Your task to perform on an android device: delete location history Image 0: 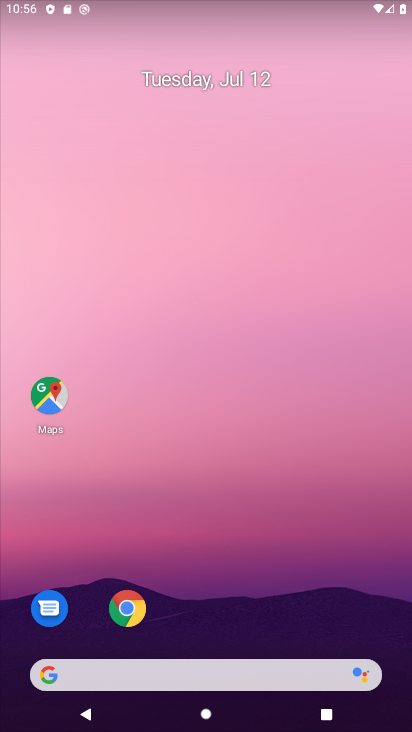
Step 0: drag from (215, 658) to (184, 180)
Your task to perform on an android device: delete location history Image 1: 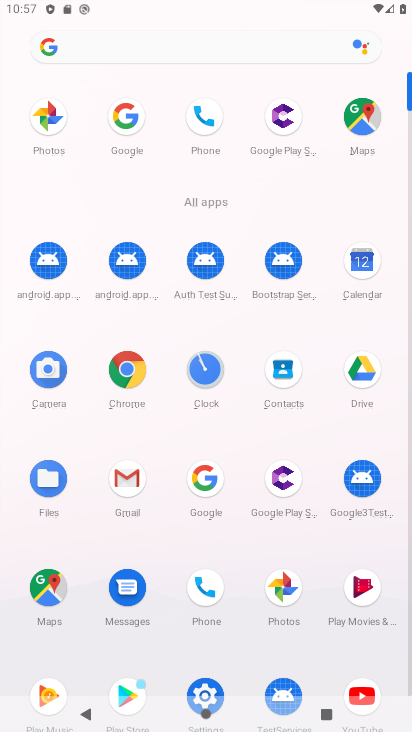
Step 1: click (52, 582)
Your task to perform on an android device: delete location history Image 2: 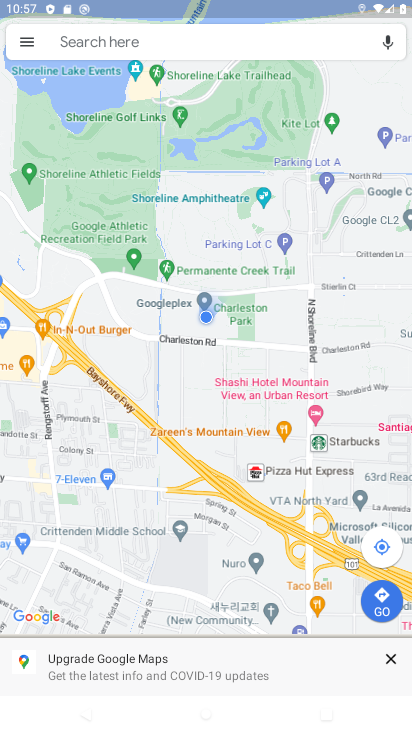
Step 2: click (32, 37)
Your task to perform on an android device: delete location history Image 3: 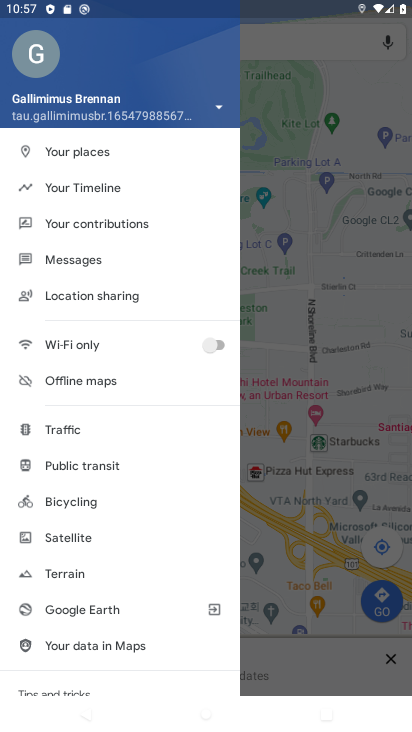
Step 3: click (62, 676)
Your task to perform on an android device: delete location history Image 4: 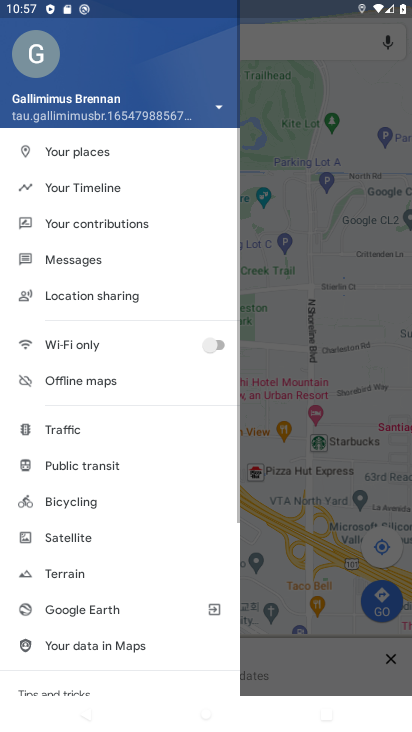
Step 4: drag from (59, 382) to (66, 346)
Your task to perform on an android device: delete location history Image 5: 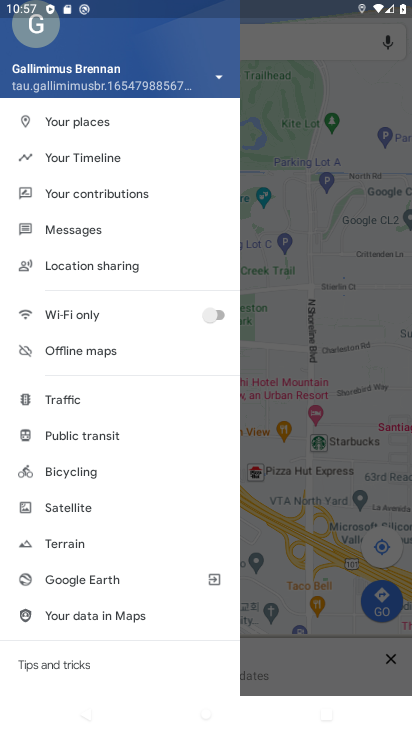
Step 5: click (99, 156)
Your task to perform on an android device: delete location history Image 6: 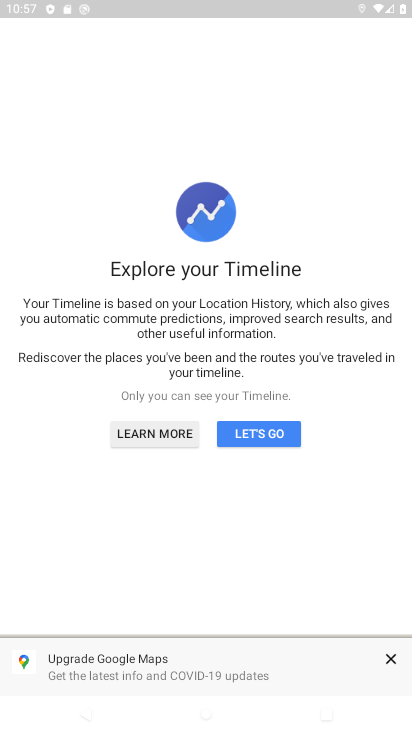
Step 6: click (249, 434)
Your task to perform on an android device: delete location history Image 7: 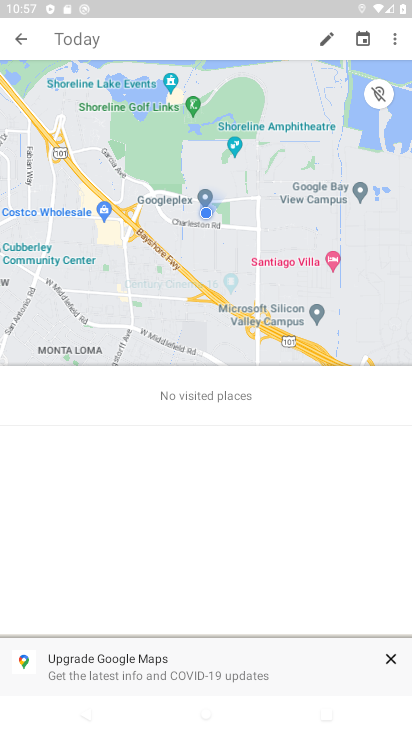
Step 7: click (394, 39)
Your task to perform on an android device: delete location history Image 8: 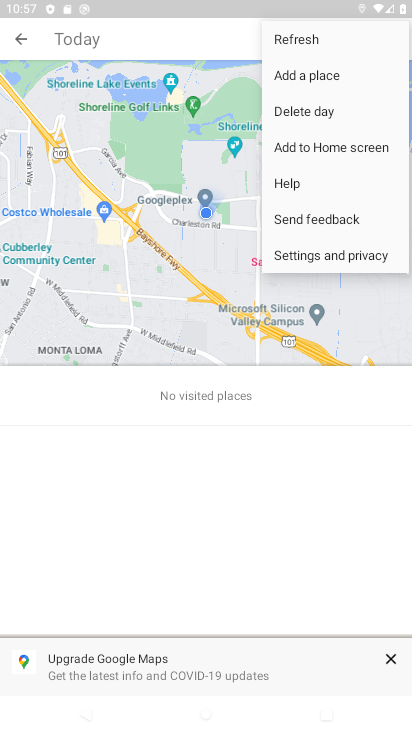
Step 8: click (317, 254)
Your task to perform on an android device: delete location history Image 9: 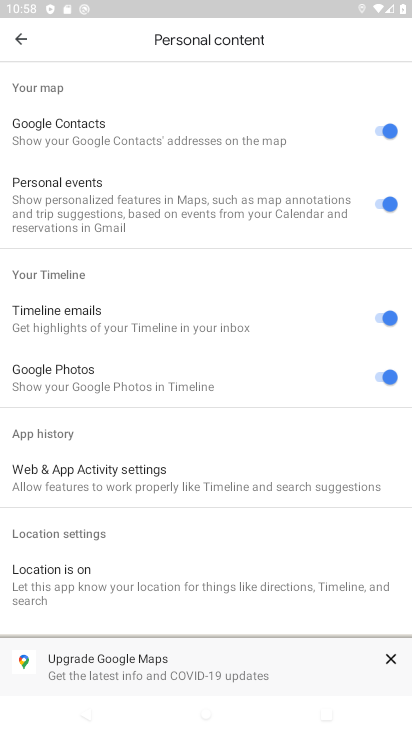
Step 9: drag from (101, 617) to (98, 299)
Your task to perform on an android device: delete location history Image 10: 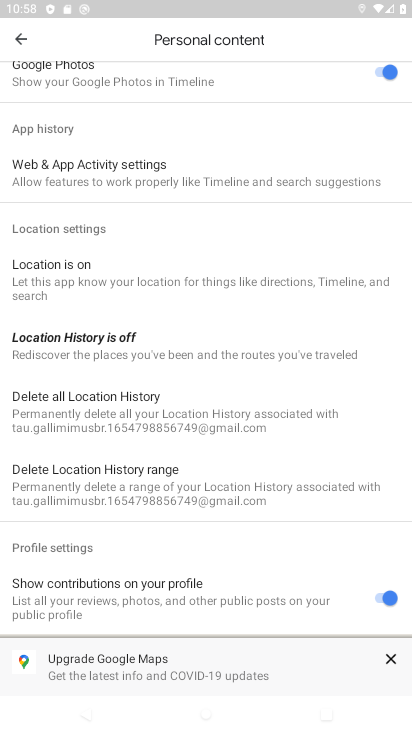
Step 10: click (99, 416)
Your task to perform on an android device: delete location history Image 11: 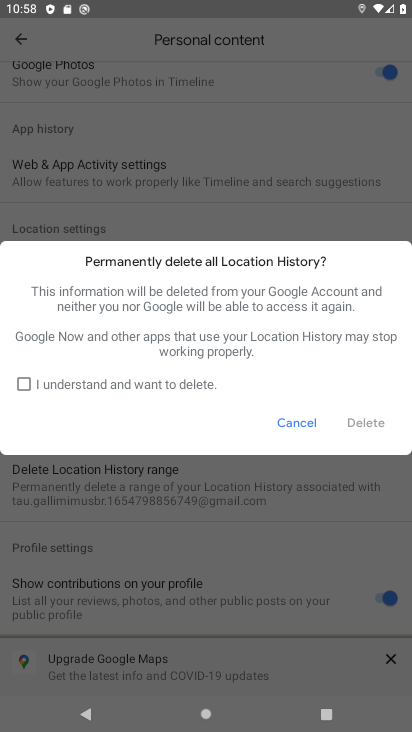
Step 11: click (25, 382)
Your task to perform on an android device: delete location history Image 12: 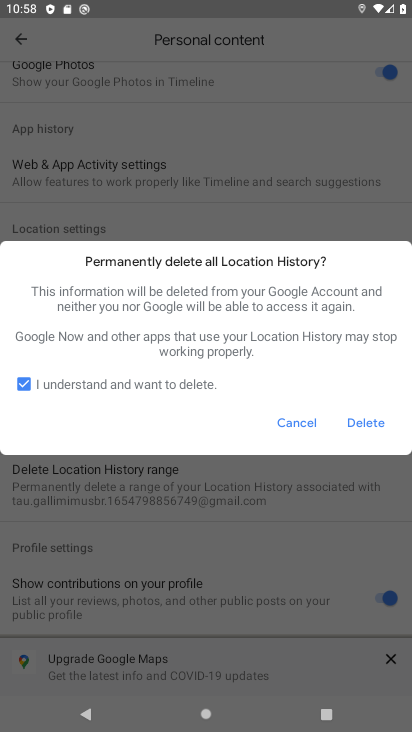
Step 12: click (372, 417)
Your task to perform on an android device: delete location history Image 13: 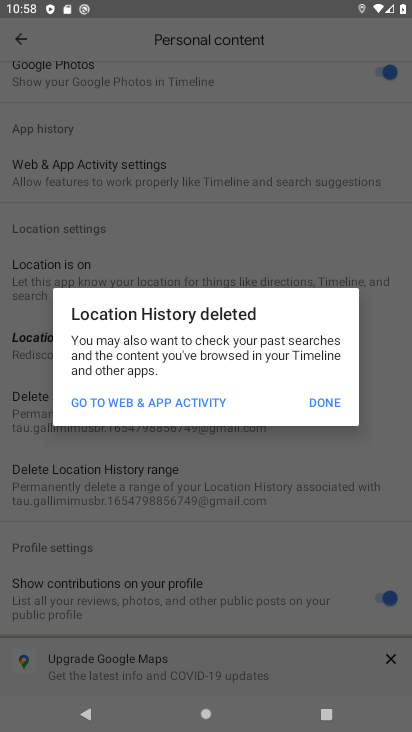
Step 13: click (332, 400)
Your task to perform on an android device: delete location history Image 14: 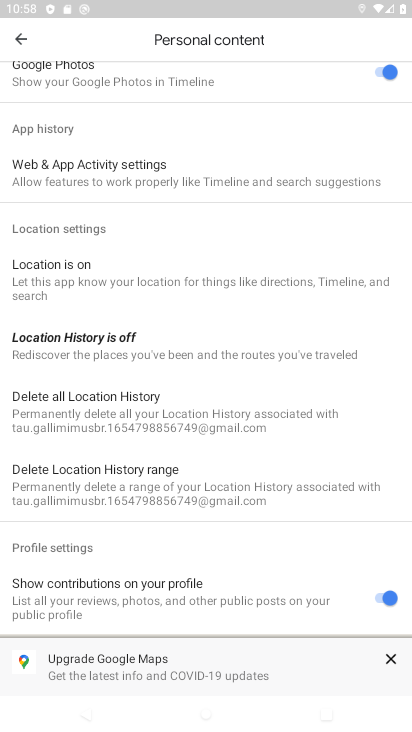
Step 14: task complete